Your task to perform on an android device: Show me recent news Image 0: 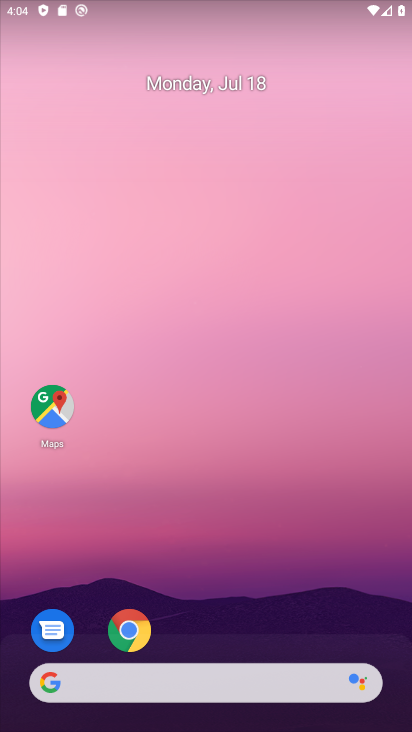
Step 0: drag from (4, 257) to (353, 255)
Your task to perform on an android device: Show me recent news Image 1: 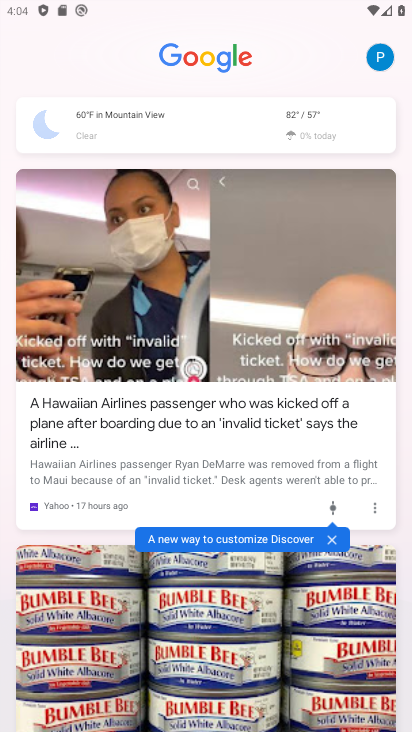
Step 1: task complete